Your task to perform on an android device: manage bookmarks in the chrome app Image 0: 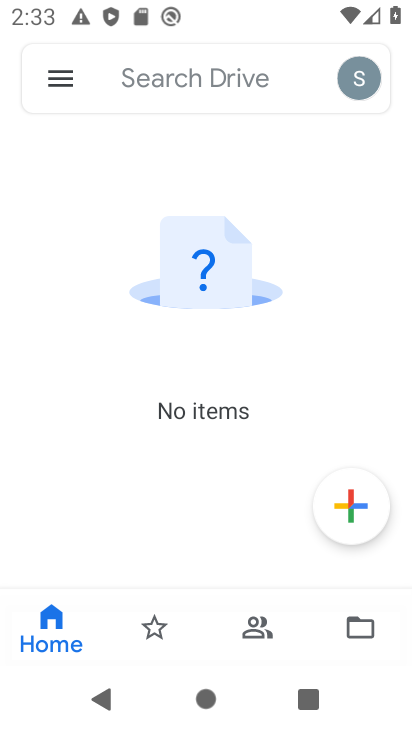
Step 0: press home button
Your task to perform on an android device: manage bookmarks in the chrome app Image 1: 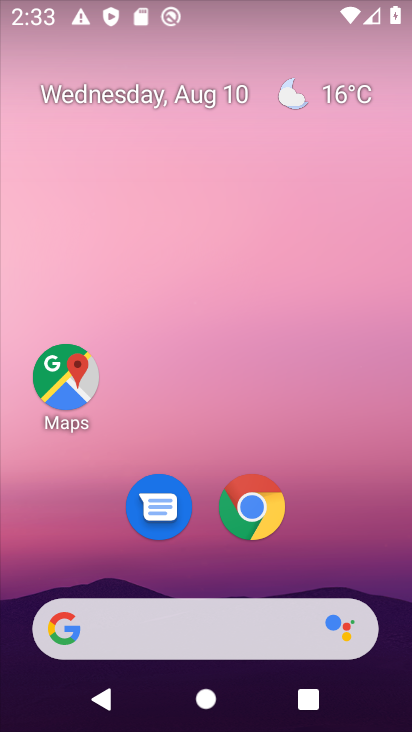
Step 1: drag from (350, 506) to (339, 62)
Your task to perform on an android device: manage bookmarks in the chrome app Image 2: 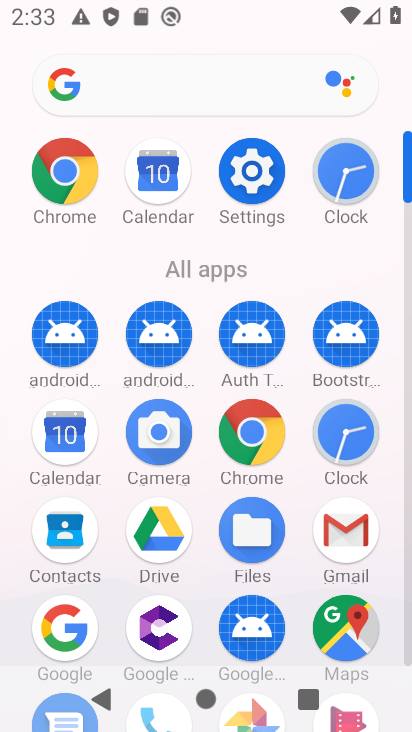
Step 2: click (259, 419)
Your task to perform on an android device: manage bookmarks in the chrome app Image 3: 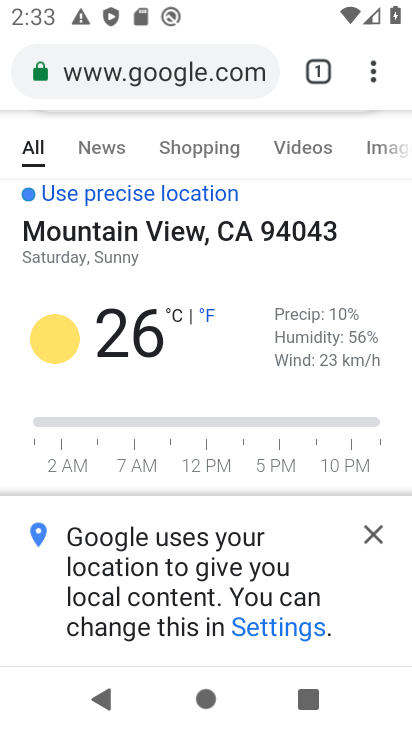
Step 3: click (373, 56)
Your task to perform on an android device: manage bookmarks in the chrome app Image 4: 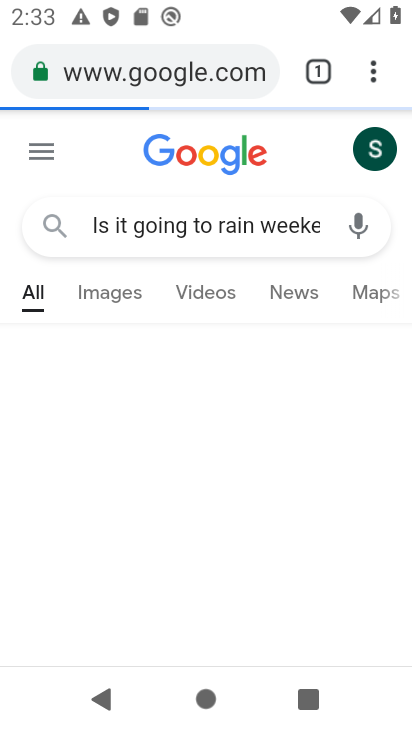
Step 4: drag from (379, 66) to (169, 286)
Your task to perform on an android device: manage bookmarks in the chrome app Image 5: 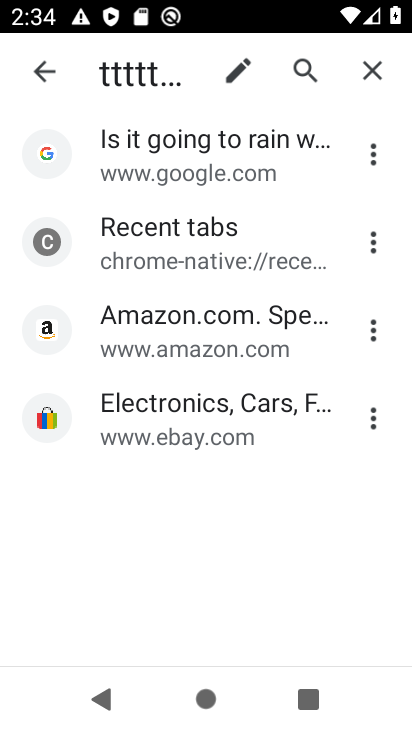
Step 5: click (378, 147)
Your task to perform on an android device: manage bookmarks in the chrome app Image 6: 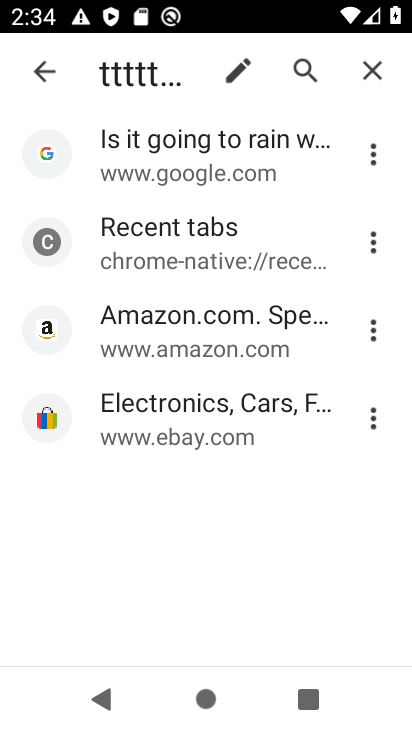
Step 6: click (378, 147)
Your task to perform on an android device: manage bookmarks in the chrome app Image 7: 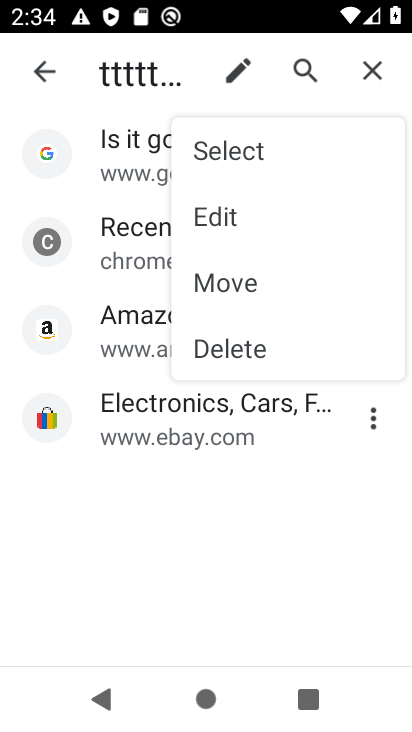
Step 7: click (234, 339)
Your task to perform on an android device: manage bookmarks in the chrome app Image 8: 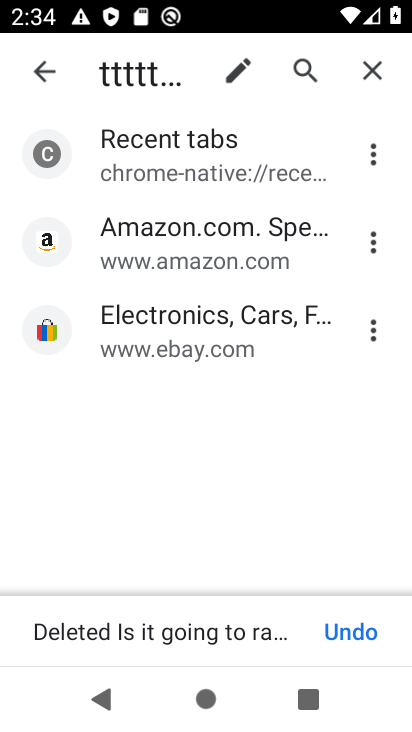
Step 8: task complete